Your task to perform on an android device: Open my contact list Image 0: 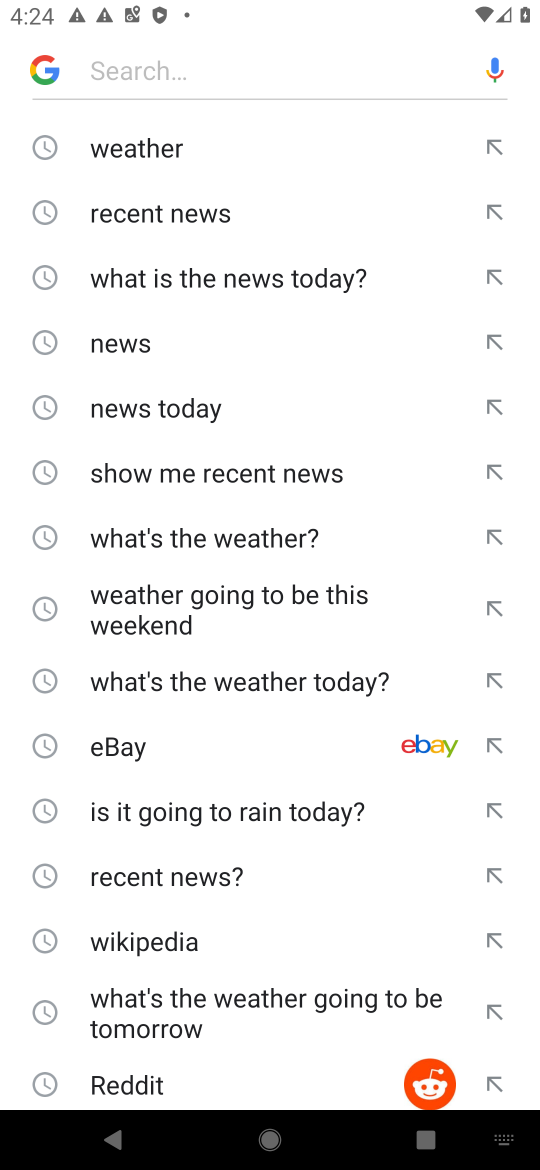
Step 0: press home button
Your task to perform on an android device: Open my contact list Image 1: 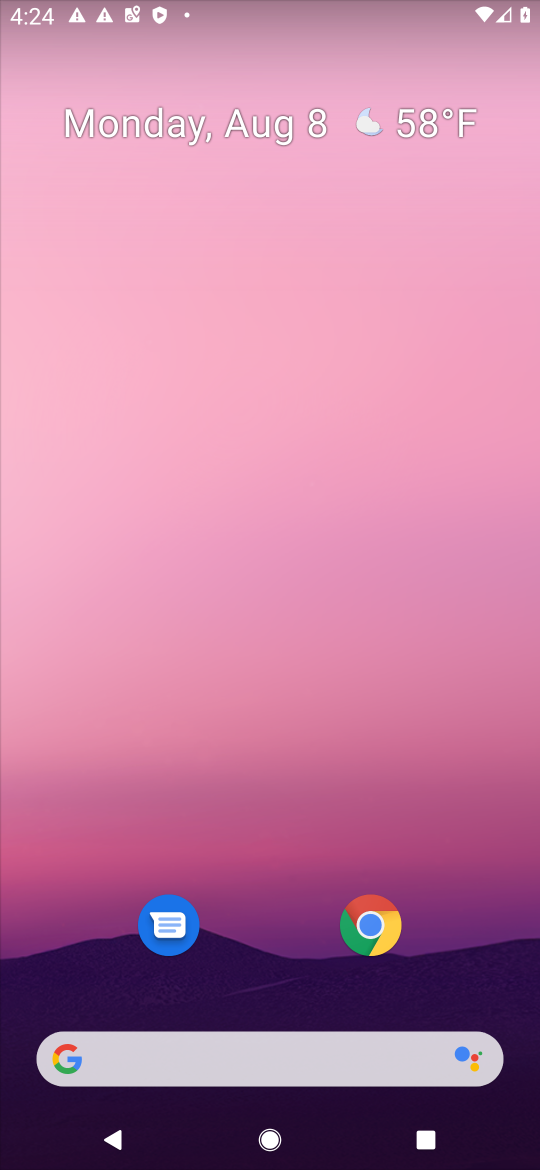
Step 1: drag from (160, 578) to (126, 37)
Your task to perform on an android device: Open my contact list Image 2: 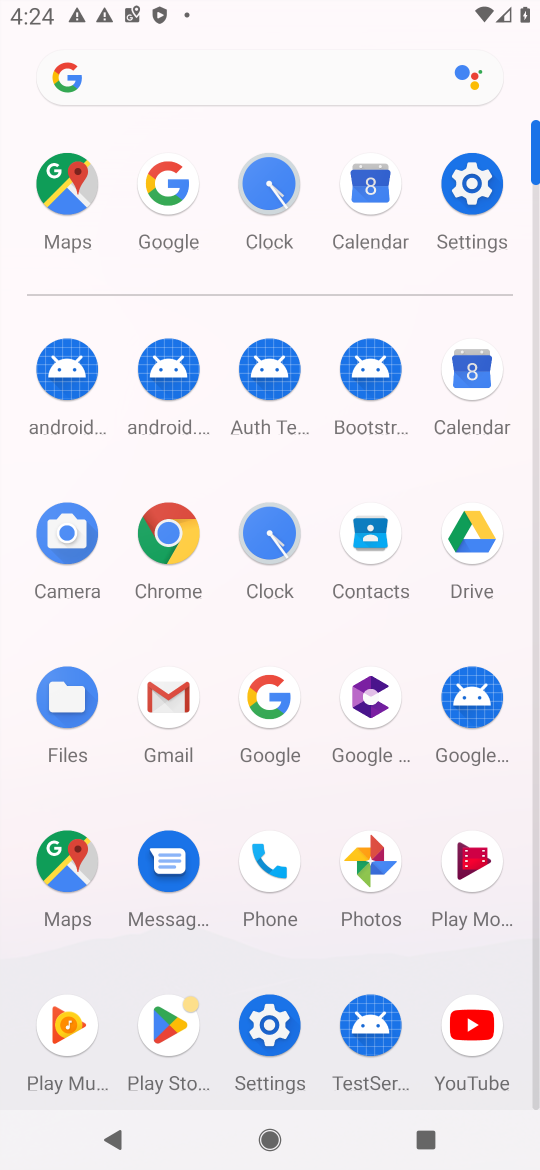
Step 2: click (374, 526)
Your task to perform on an android device: Open my contact list Image 3: 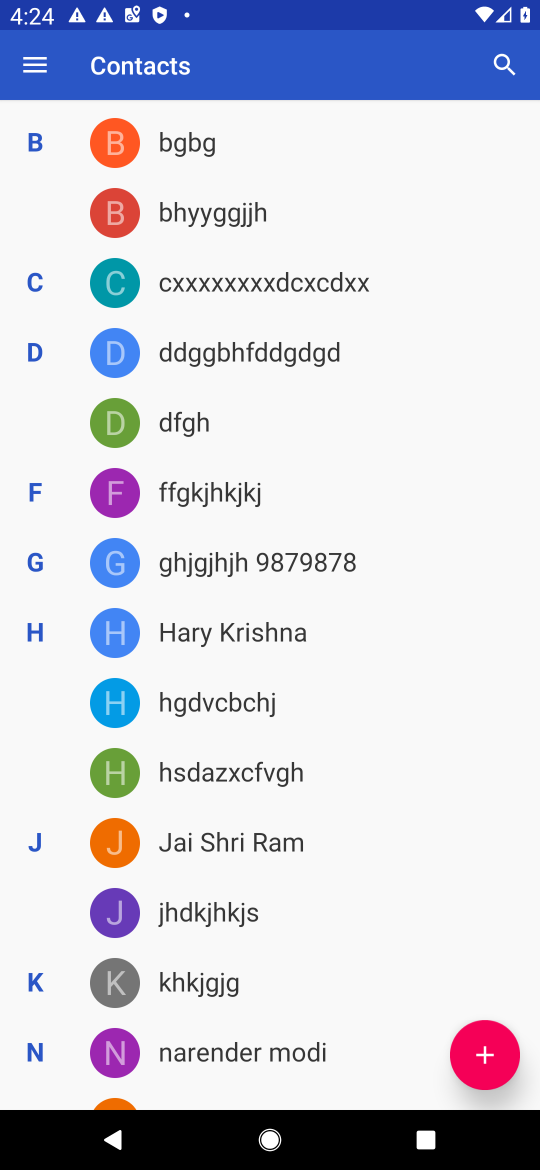
Step 3: task complete